Your task to perform on an android device: Open Youtube and go to the subscriptions tab Image 0: 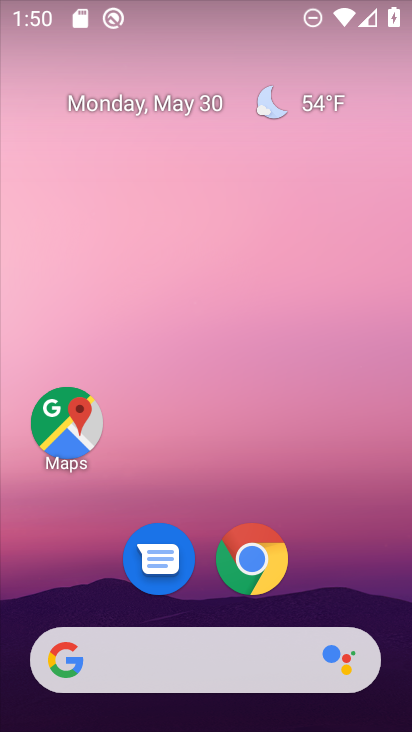
Step 0: drag from (338, 589) to (289, 0)
Your task to perform on an android device: Open Youtube and go to the subscriptions tab Image 1: 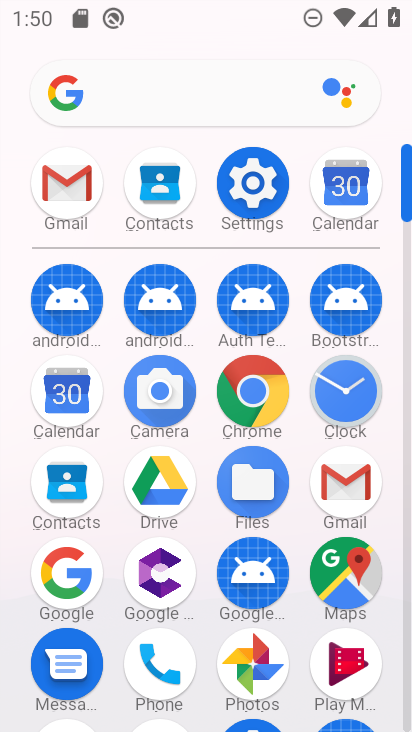
Step 1: drag from (279, 601) to (277, 163)
Your task to perform on an android device: Open Youtube and go to the subscriptions tab Image 2: 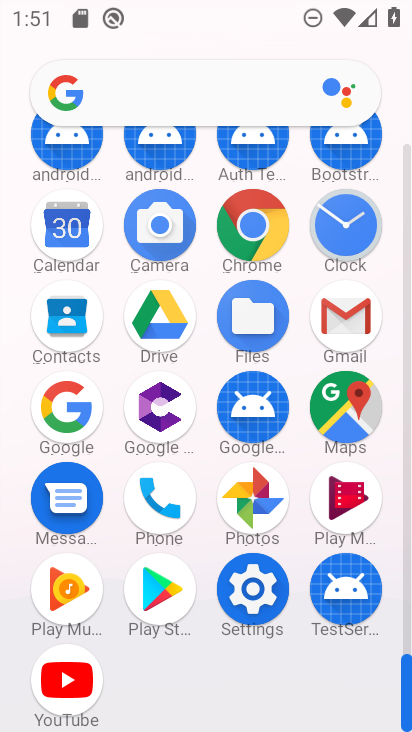
Step 2: click (64, 676)
Your task to perform on an android device: Open Youtube and go to the subscriptions tab Image 3: 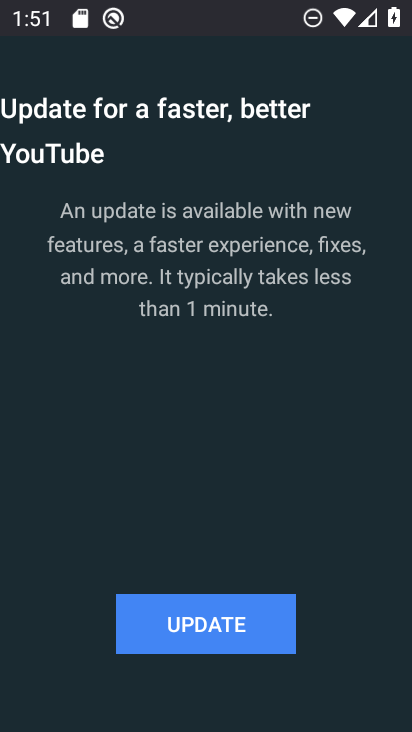
Step 3: click (178, 632)
Your task to perform on an android device: Open Youtube and go to the subscriptions tab Image 4: 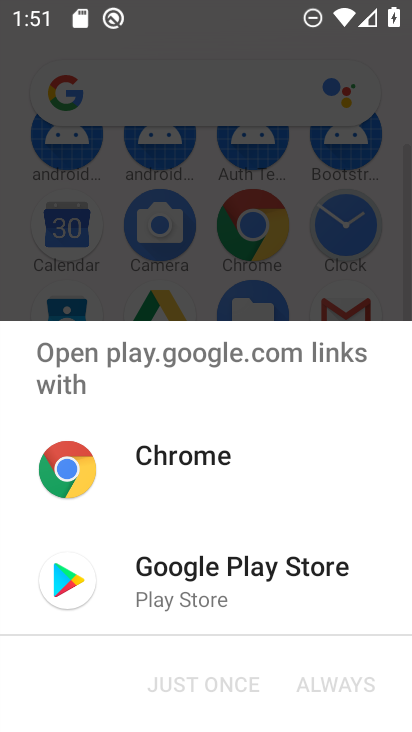
Step 4: click (219, 570)
Your task to perform on an android device: Open Youtube and go to the subscriptions tab Image 5: 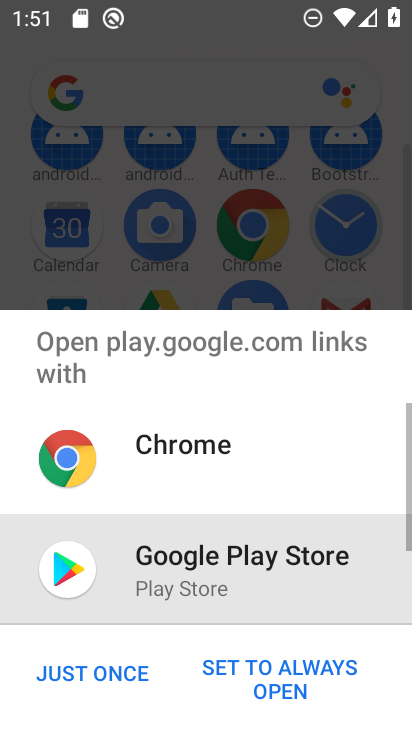
Step 5: click (76, 685)
Your task to perform on an android device: Open Youtube and go to the subscriptions tab Image 6: 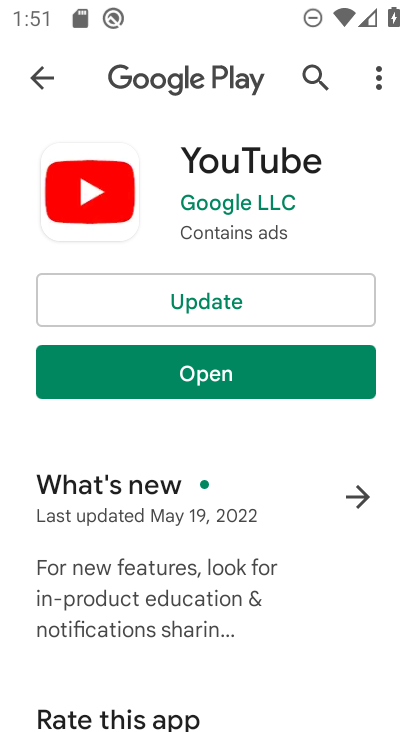
Step 6: click (223, 305)
Your task to perform on an android device: Open Youtube and go to the subscriptions tab Image 7: 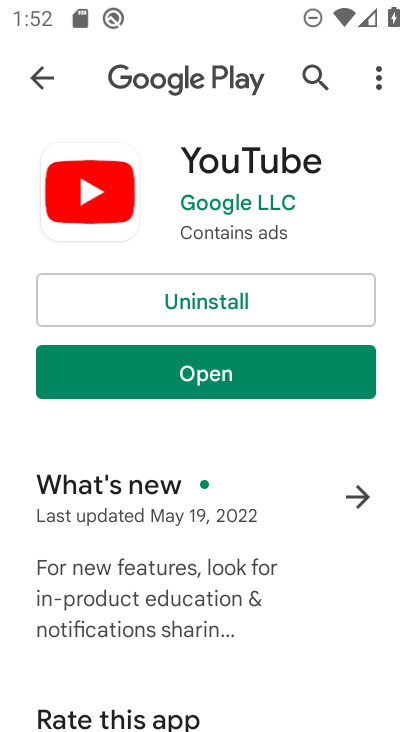
Step 7: click (218, 368)
Your task to perform on an android device: Open Youtube and go to the subscriptions tab Image 8: 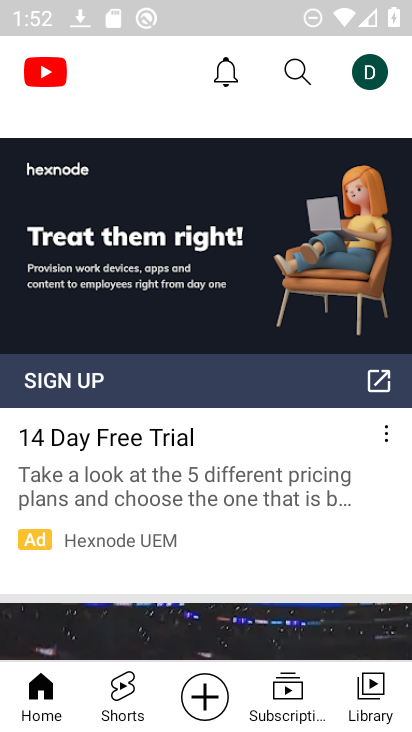
Step 8: click (289, 700)
Your task to perform on an android device: Open Youtube and go to the subscriptions tab Image 9: 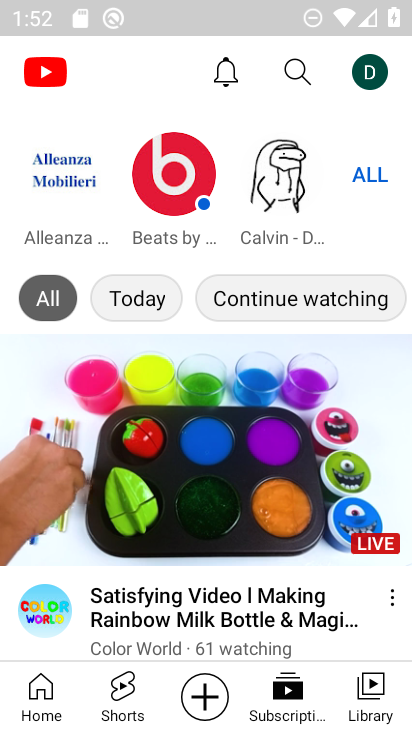
Step 9: task complete